Your task to perform on an android device: change notifications settings Image 0: 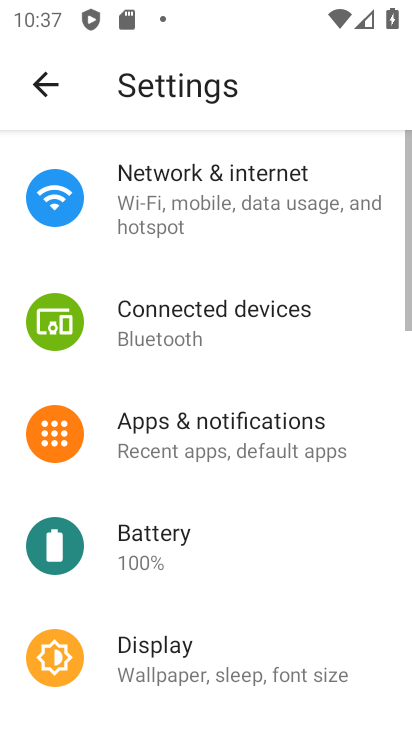
Step 0: press home button
Your task to perform on an android device: change notifications settings Image 1: 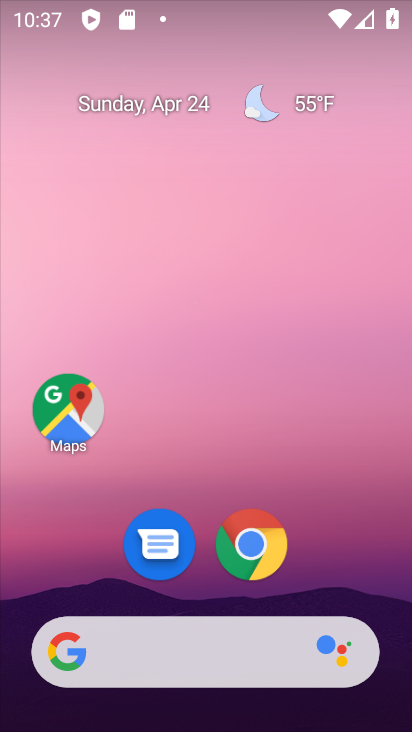
Step 1: drag from (329, 537) to (325, 75)
Your task to perform on an android device: change notifications settings Image 2: 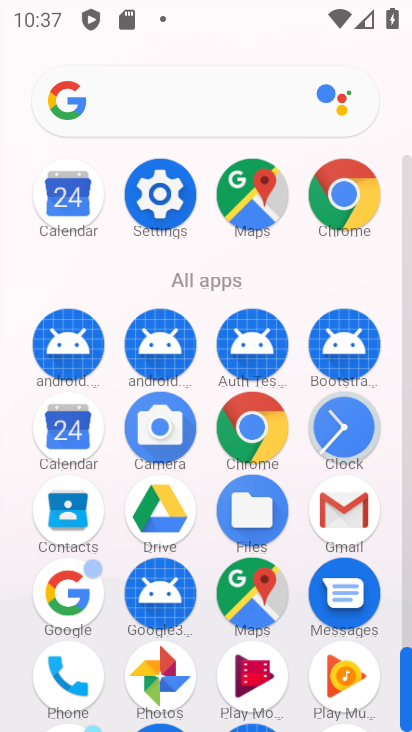
Step 2: click (165, 168)
Your task to perform on an android device: change notifications settings Image 3: 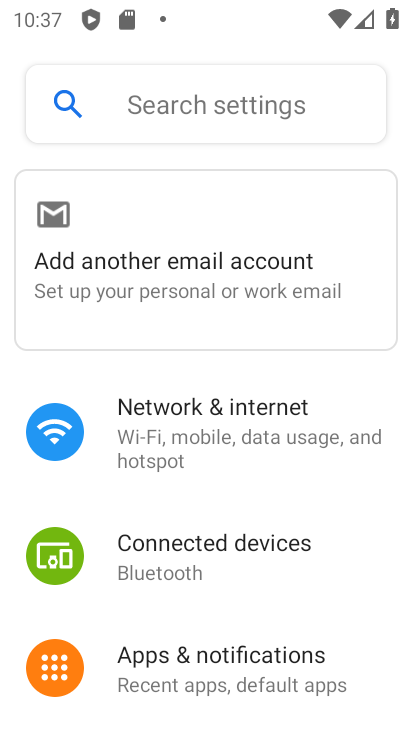
Step 3: click (232, 664)
Your task to perform on an android device: change notifications settings Image 4: 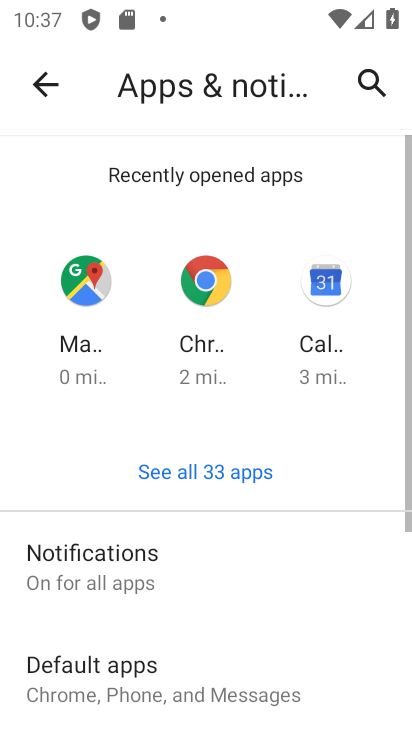
Step 4: drag from (351, 640) to (337, 254)
Your task to perform on an android device: change notifications settings Image 5: 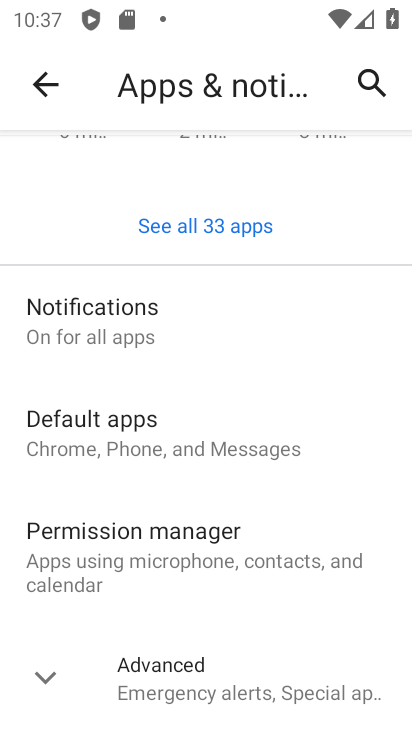
Step 5: click (124, 321)
Your task to perform on an android device: change notifications settings Image 6: 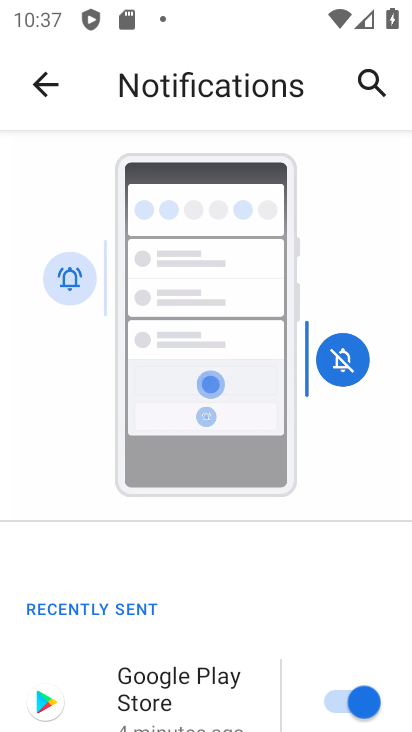
Step 6: drag from (234, 671) to (290, 154)
Your task to perform on an android device: change notifications settings Image 7: 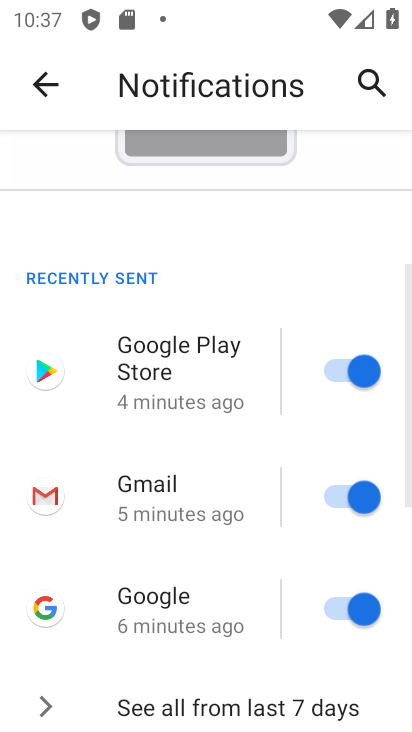
Step 7: drag from (238, 662) to (270, 197)
Your task to perform on an android device: change notifications settings Image 8: 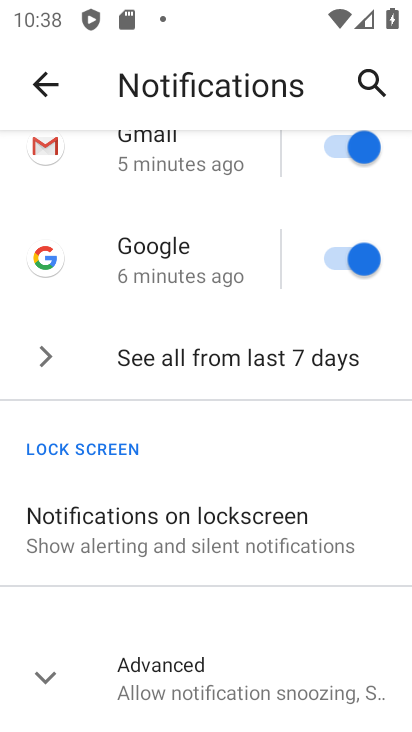
Step 8: click (166, 671)
Your task to perform on an android device: change notifications settings Image 9: 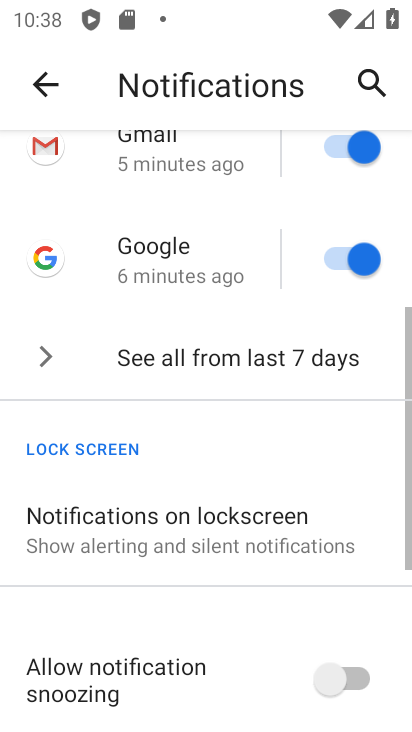
Step 9: task complete